Your task to perform on an android device: check android version Image 0: 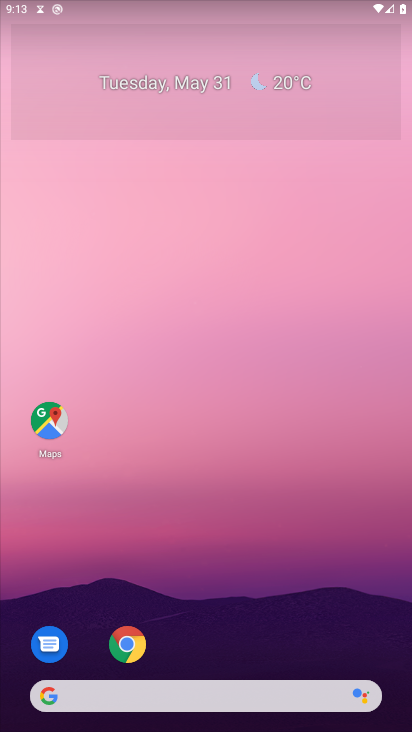
Step 0: press home button
Your task to perform on an android device: check android version Image 1: 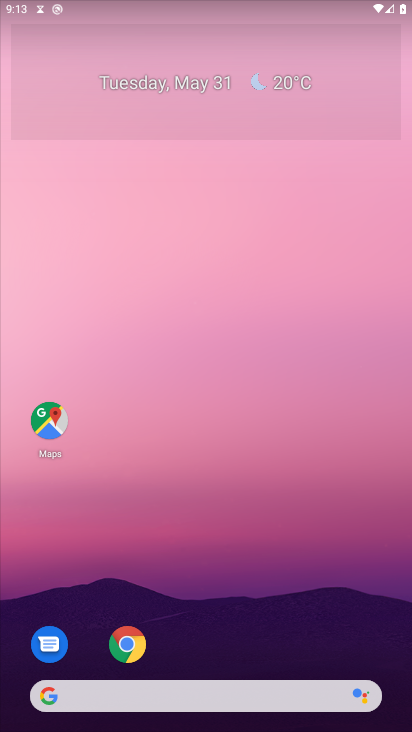
Step 1: drag from (212, 663) to (81, 0)
Your task to perform on an android device: check android version Image 2: 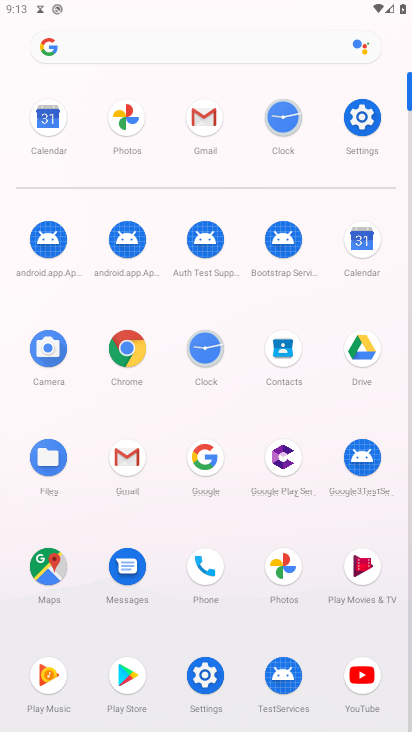
Step 2: click (364, 110)
Your task to perform on an android device: check android version Image 3: 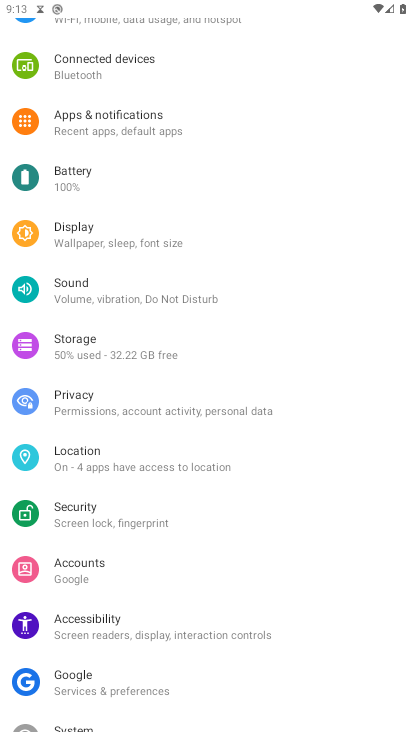
Step 3: drag from (174, 669) to (233, 109)
Your task to perform on an android device: check android version Image 4: 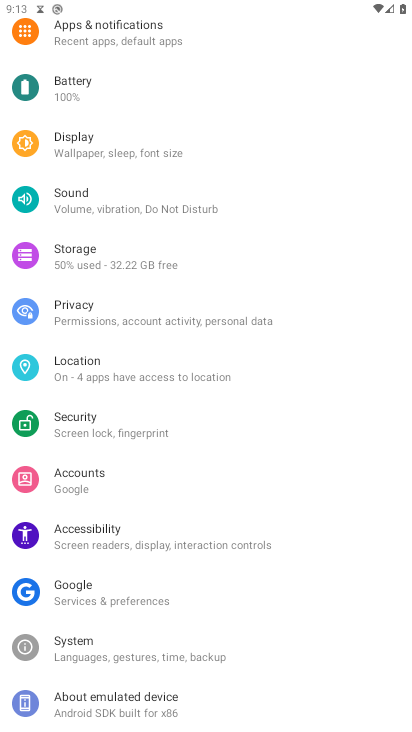
Step 4: click (187, 700)
Your task to perform on an android device: check android version Image 5: 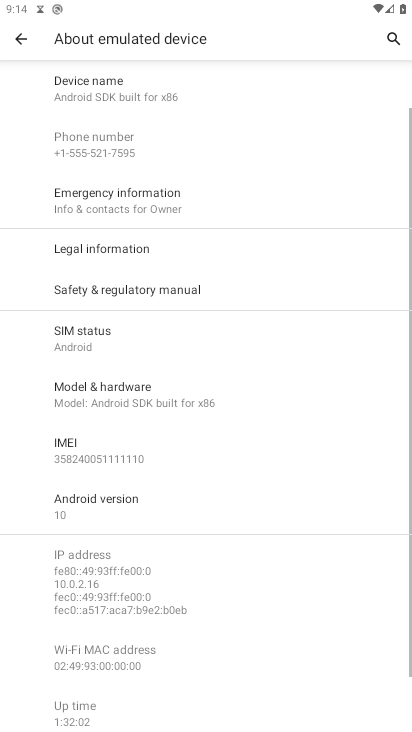
Step 5: click (100, 494)
Your task to perform on an android device: check android version Image 6: 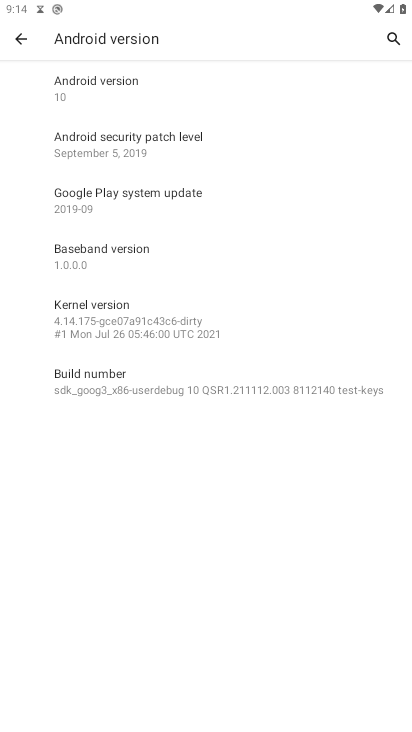
Step 6: task complete